Your task to perform on an android device: Clear all items from cart on amazon.com. Add sony triple a to the cart on amazon.com Image 0: 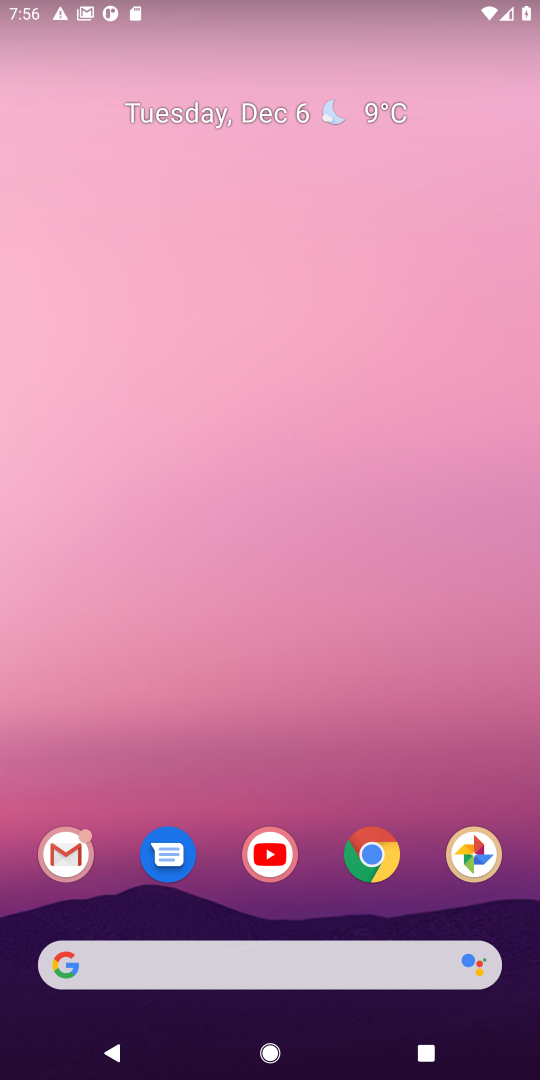
Step 0: click (357, 852)
Your task to perform on an android device: Clear all items from cart on amazon.com. Add sony triple a to the cart on amazon.com Image 1: 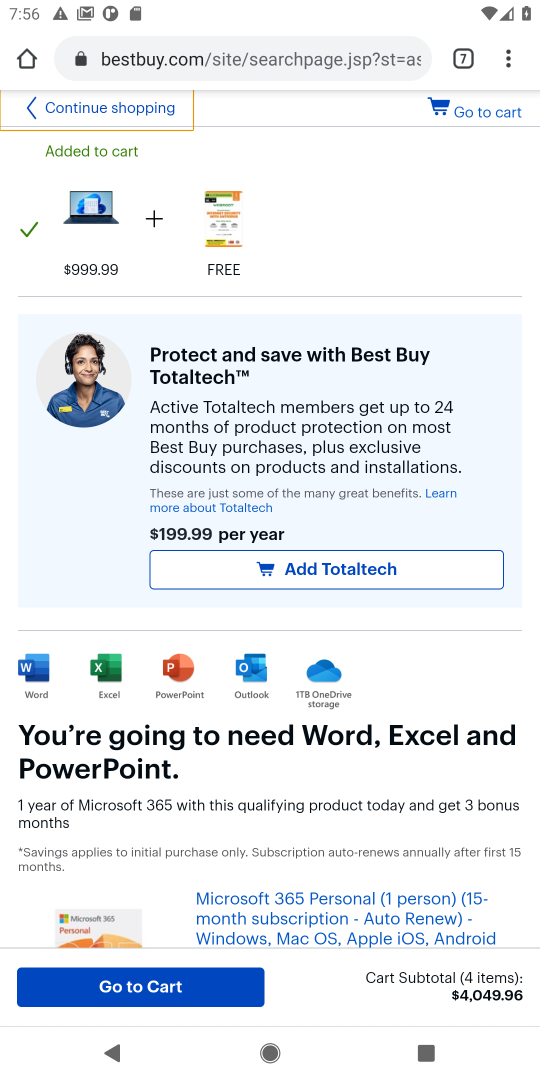
Step 1: click (462, 55)
Your task to perform on an android device: Clear all items from cart on amazon.com. Add sony triple a to the cart on amazon.com Image 2: 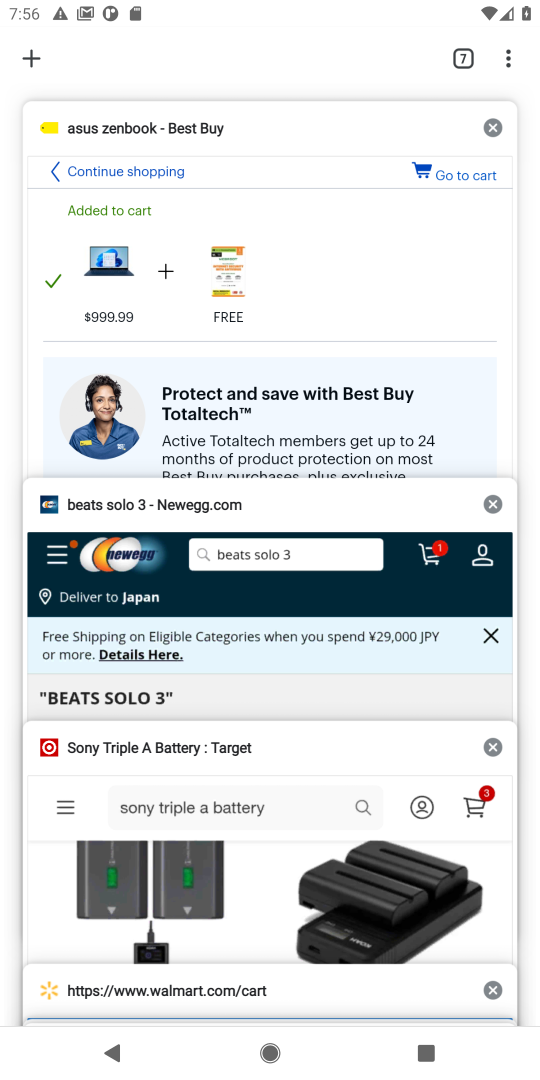
Step 2: drag from (231, 981) to (332, 367)
Your task to perform on an android device: Clear all items from cart on amazon.com. Add sony triple a to the cart on amazon.com Image 3: 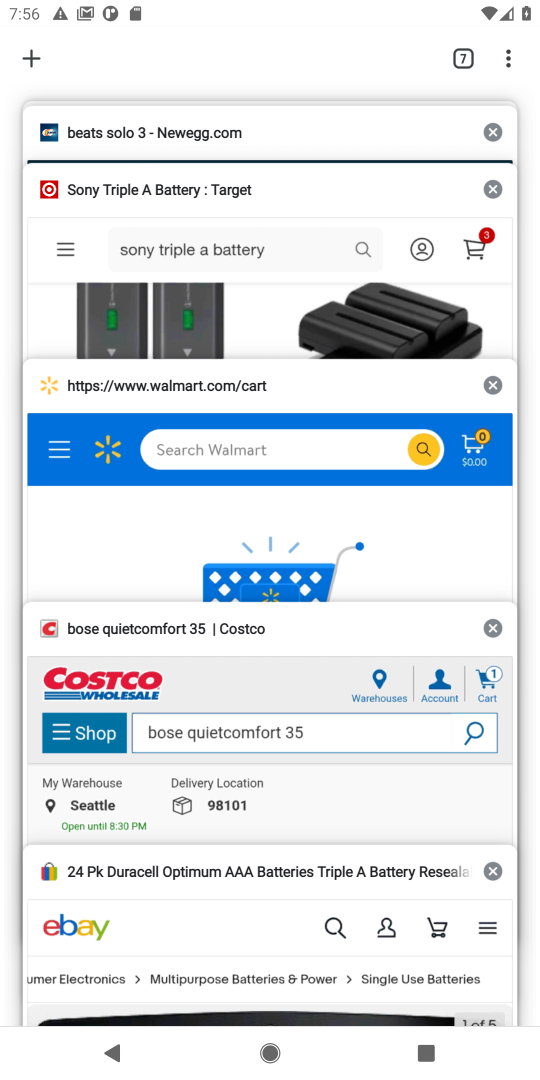
Step 3: drag from (232, 758) to (305, 246)
Your task to perform on an android device: Clear all items from cart on amazon.com. Add sony triple a to the cart on amazon.com Image 4: 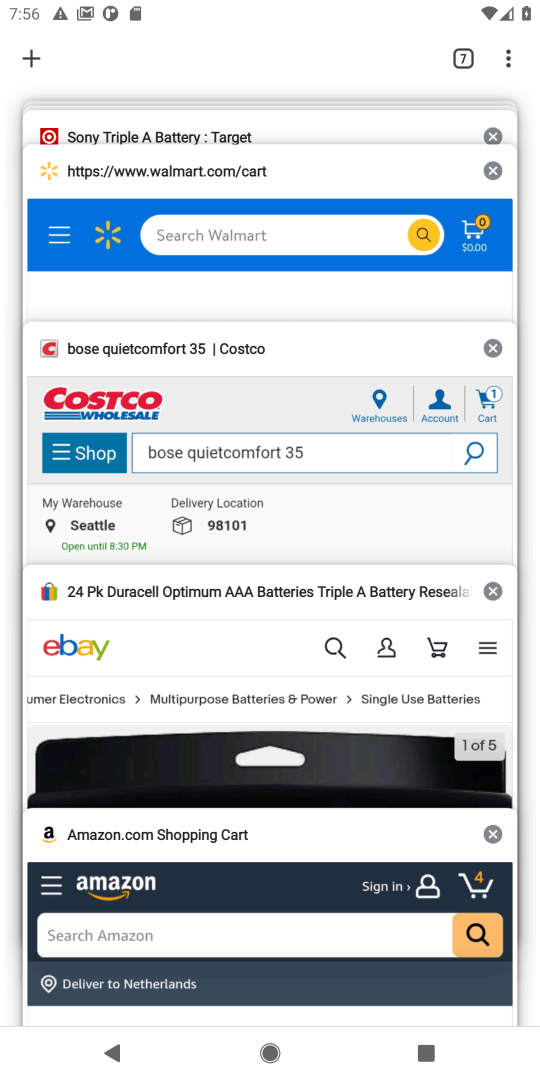
Step 4: click (239, 824)
Your task to perform on an android device: Clear all items from cart on amazon.com. Add sony triple a to the cart on amazon.com Image 5: 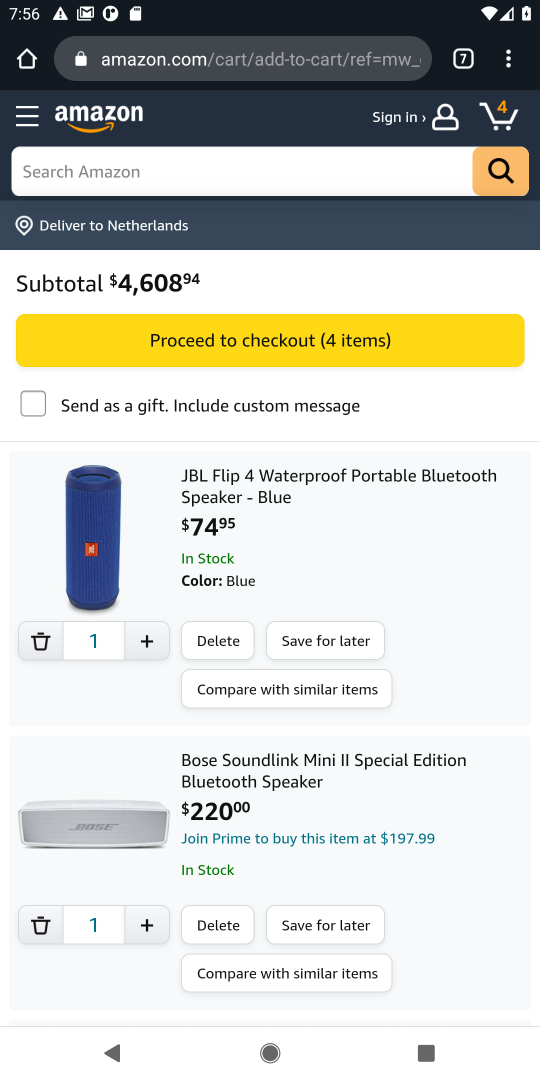
Step 5: click (213, 633)
Your task to perform on an android device: Clear all items from cart on amazon.com. Add sony triple a to the cart on amazon.com Image 6: 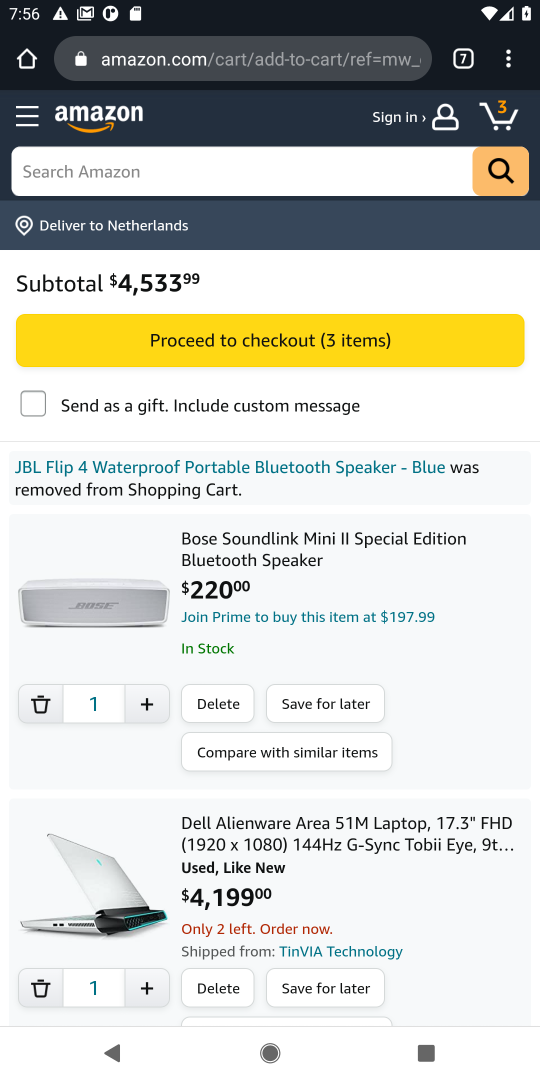
Step 6: click (231, 707)
Your task to perform on an android device: Clear all items from cart on amazon.com. Add sony triple a to the cart on amazon.com Image 7: 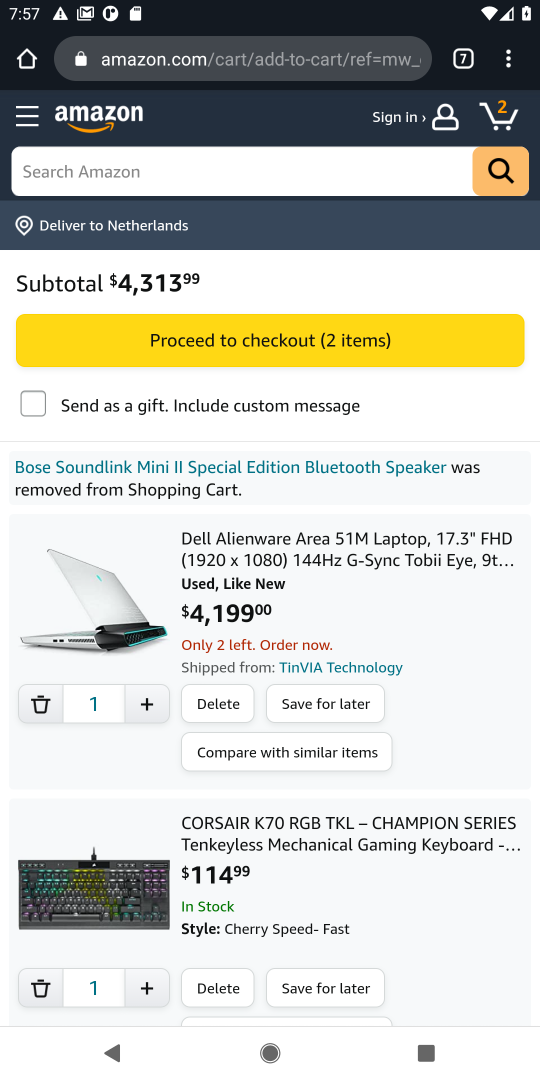
Step 7: click (231, 707)
Your task to perform on an android device: Clear all items from cart on amazon.com. Add sony triple a to the cart on amazon.com Image 8: 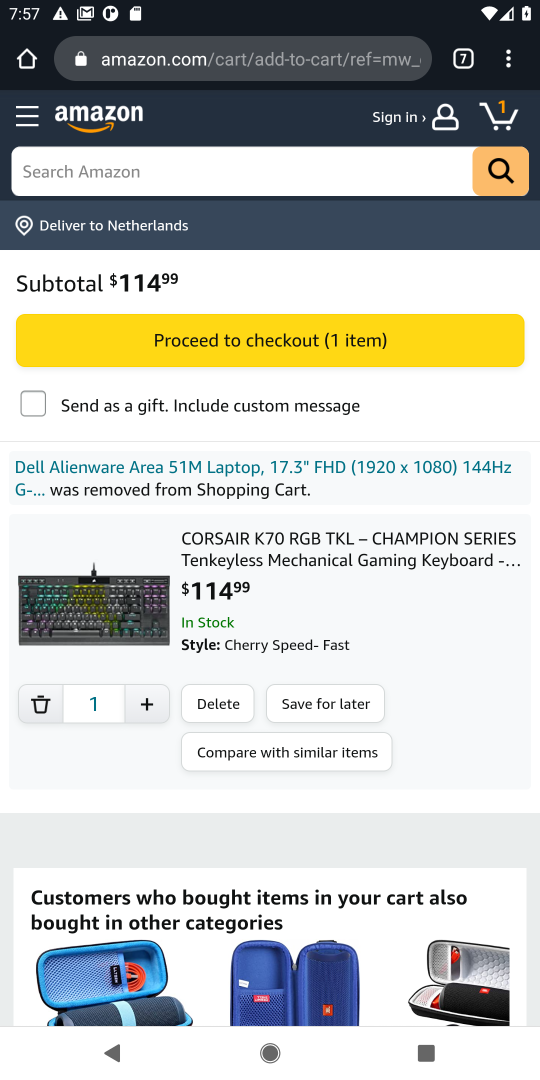
Step 8: click (231, 707)
Your task to perform on an android device: Clear all items from cart on amazon.com. Add sony triple a to the cart on amazon.com Image 9: 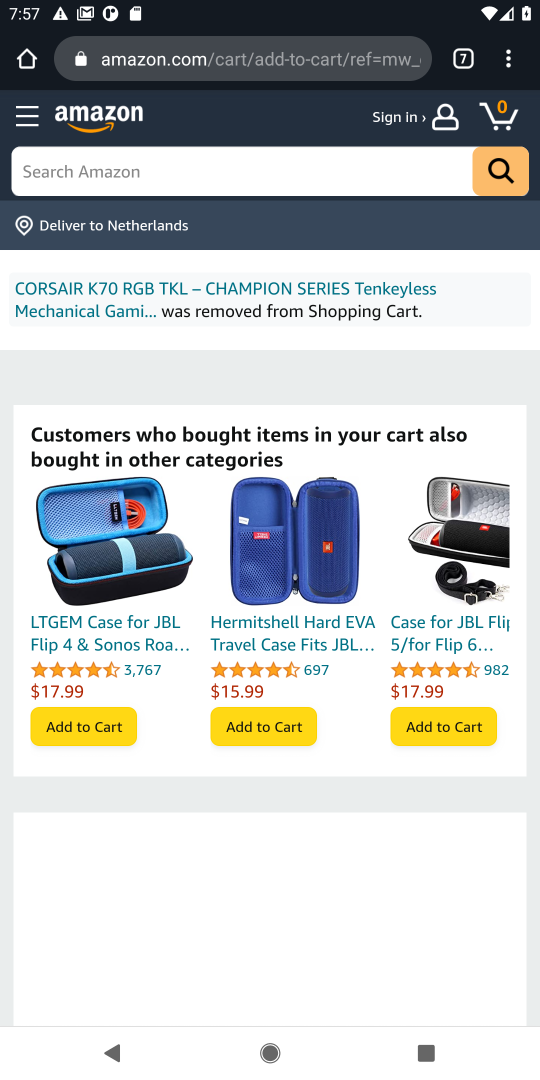
Step 9: click (78, 165)
Your task to perform on an android device: Clear all items from cart on amazon.com. Add sony triple a to the cart on amazon.com Image 10: 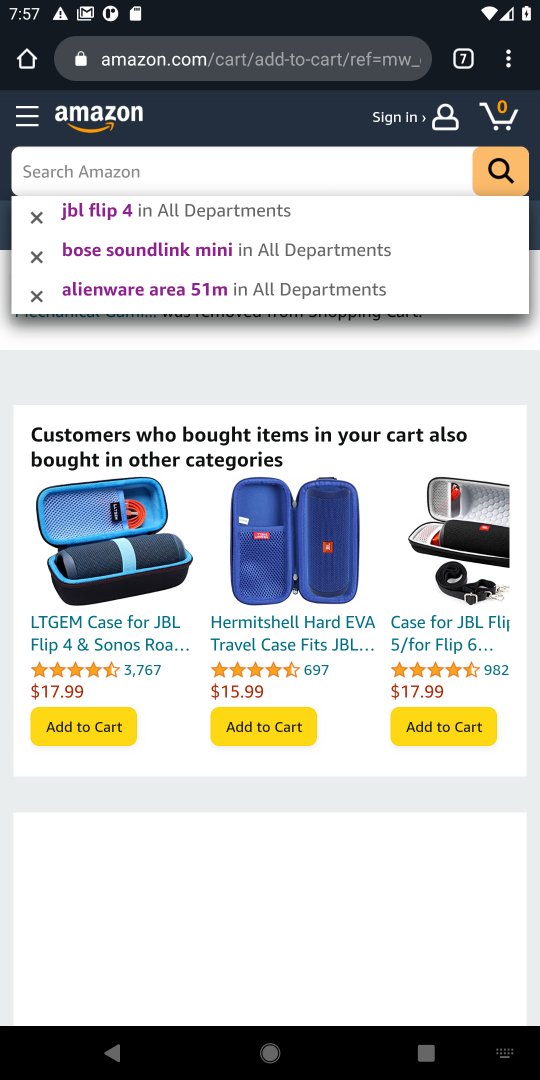
Step 10: type "sony triple a batteries"
Your task to perform on an android device: Clear all items from cart on amazon.com. Add sony triple a to the cart on amazon.com Image 11: 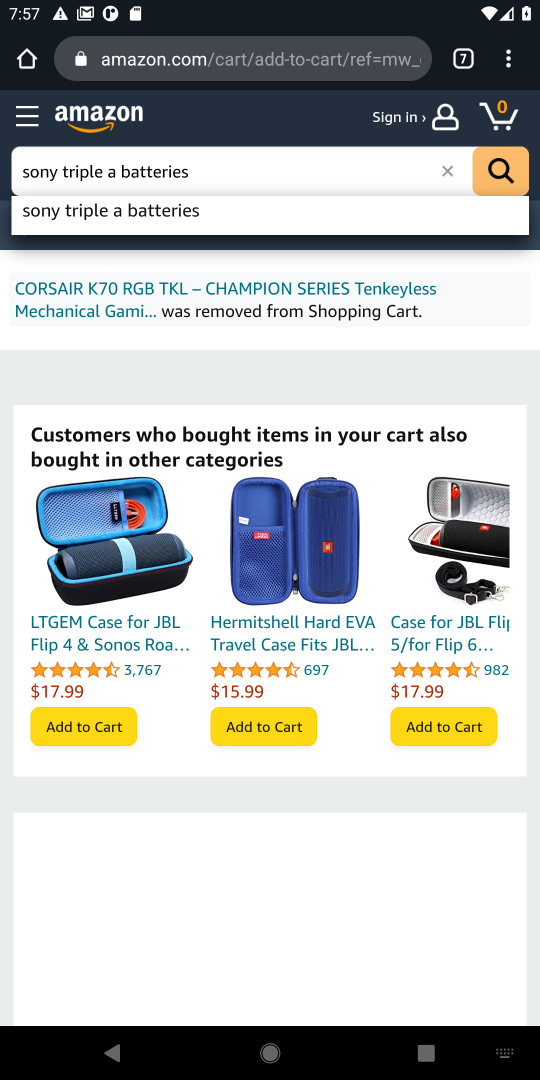
Step 11: click (190, 218)
Your task to perform on an android device: Clear all items from cart on amazon.com. Add sony triple a to the cart on amazon.com Image 12: 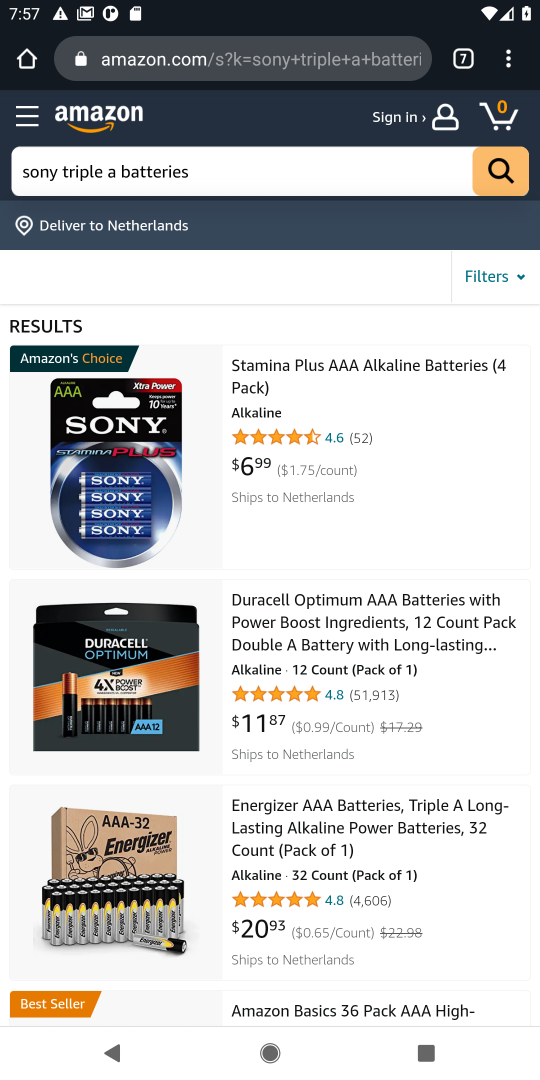
Step 12: click (86, 470)
Your task to perform on an android device: Clear all items from cart on amazon.com. Add sony triple a to the cart on amazon.com Image 13: 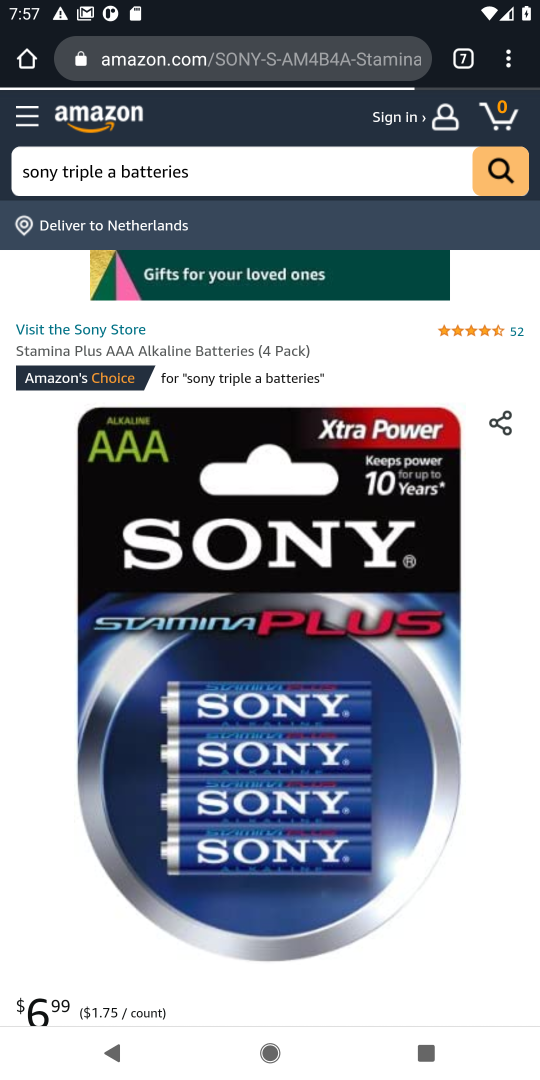
Step 13: drag from (178, 936) to (287, 270)
Your task to perform on an android device: Clear all items from cart on amazon.com. Add sony triple a to the cart on amazon.com Image 14: 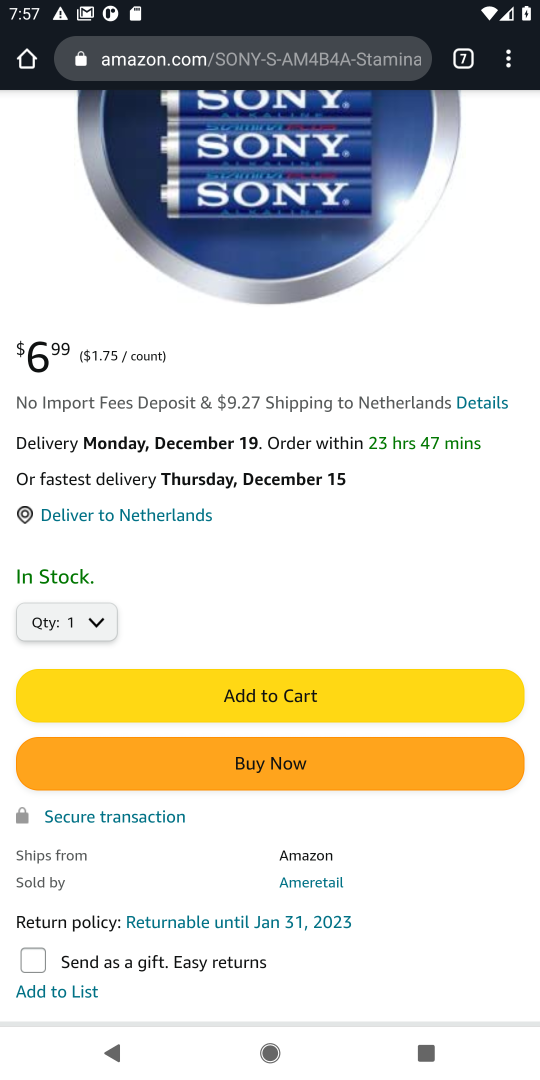
Step 14: click (296, 676)
Your task to perform on an android device: Clear all items from cart on amazon.com. Add sony triple a to the cart on amazon.com Image 15: 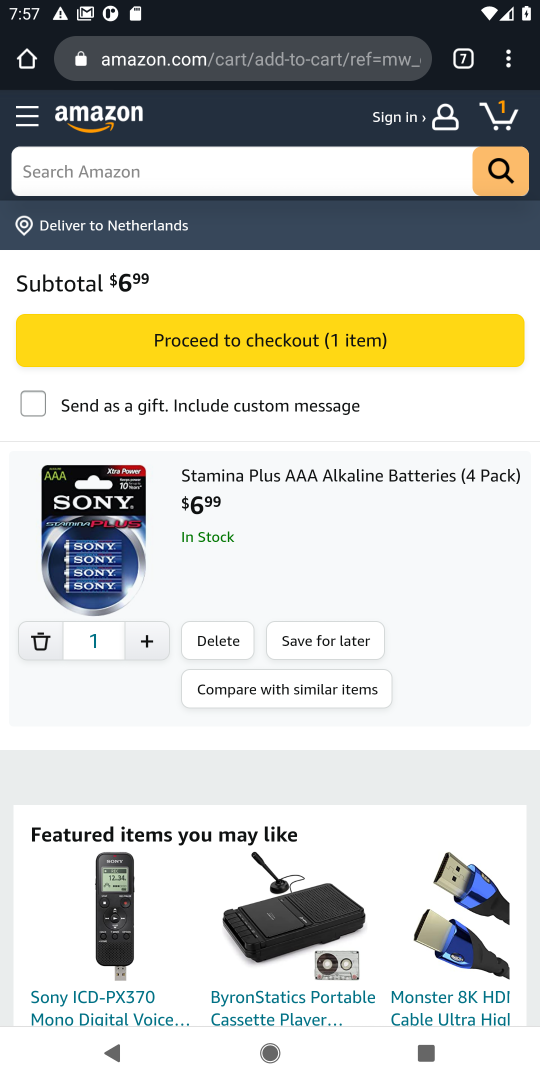
Step 15: task complete